Your task to perform on an android device: read, delete, or share a saved page in the chrome app Image 0: 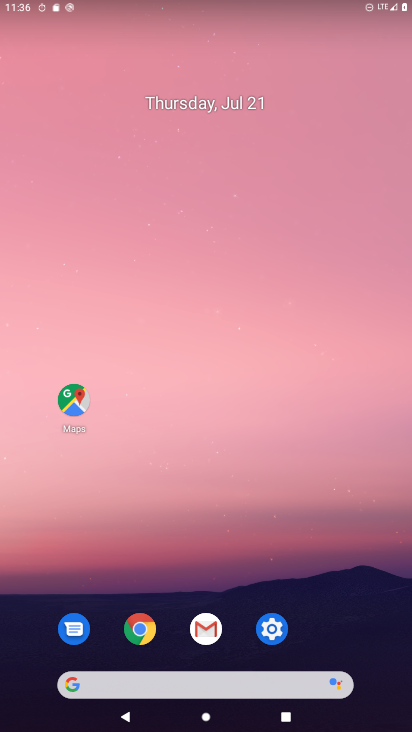
Step 0: click (147, 639)
Your task to perform on an android device: read, delete, or share a saved page in the chrome app Image 1: 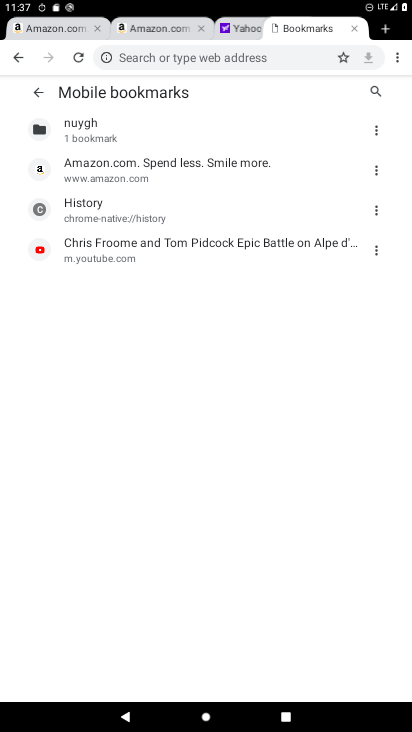
Step 1: task complete